Your task to perform on an android device: open chrome privacy settings Image 0: 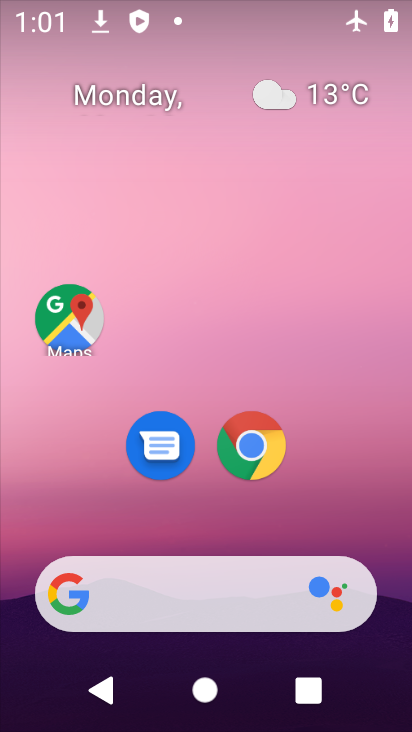
Step 0: click (256, 465)
Your task to perform on an android device: open chrome privacy settings Image 1: 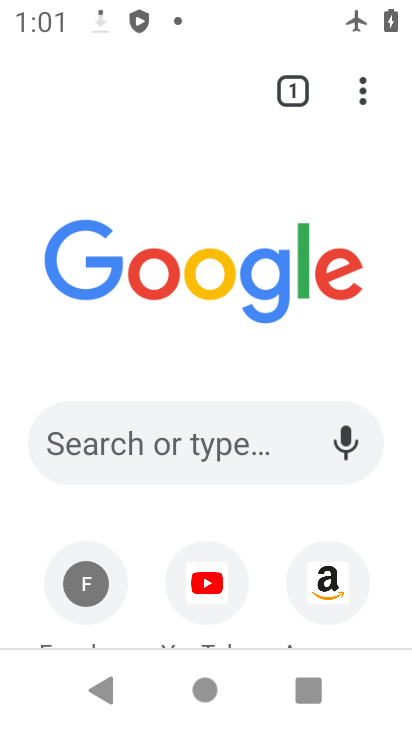
Step 1: click (359, 99)
Your task to perform on an android device: open chrome privacy settings Image 2: 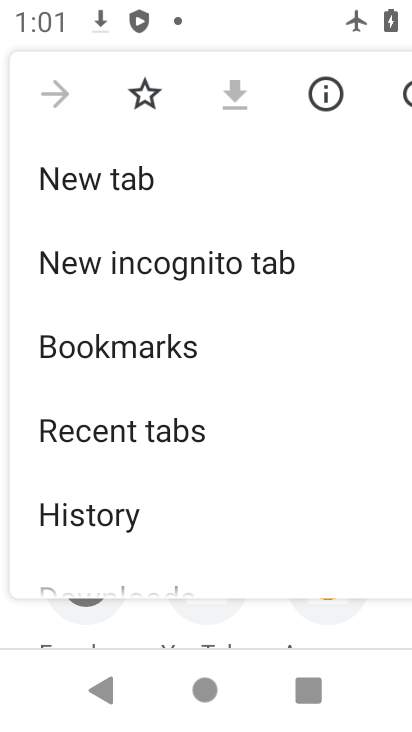
Step 2: drag from (152, 513) to (123, 266)
Your task to perform on an android device: open chrome privacy settings Image 3: 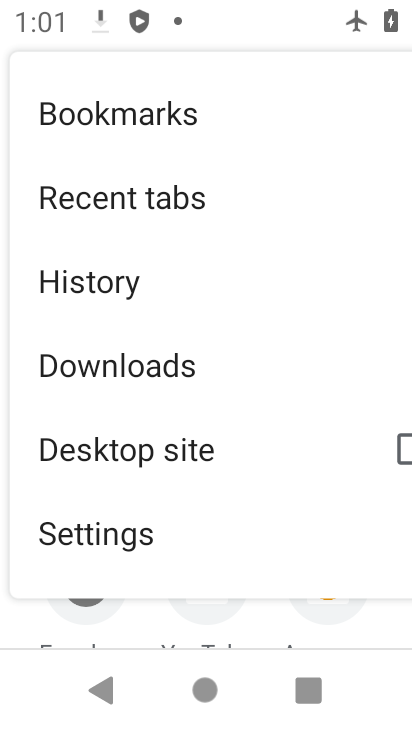
Step 3: click (98, 533)
Your task to perform on an android device: open chrome privacy settings Image 4: 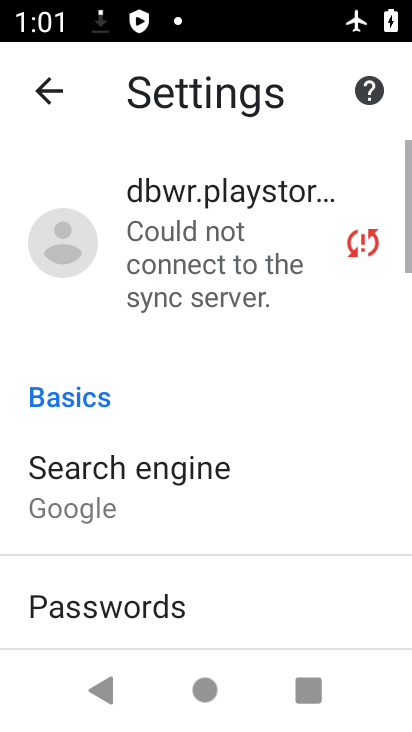
Step 4: drag from (131, 538) to (146, 216)
Your task to perform on an android device: open chrome privacy settings Image 5: 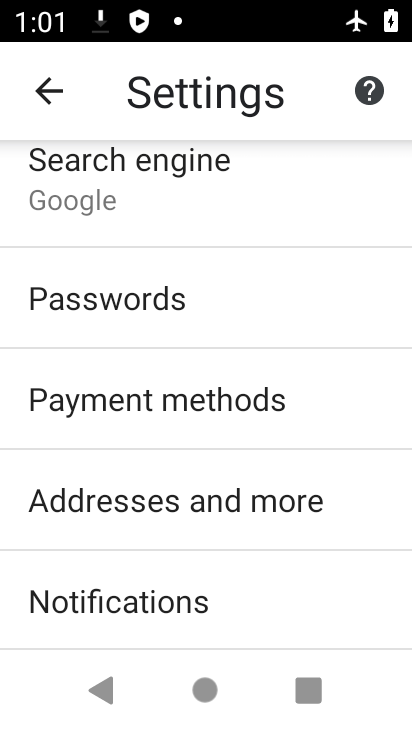
Step 5: drag from (178, 574) to (221, 285)
Your task to perform on an android device: open chrome privacy settings Image 6: 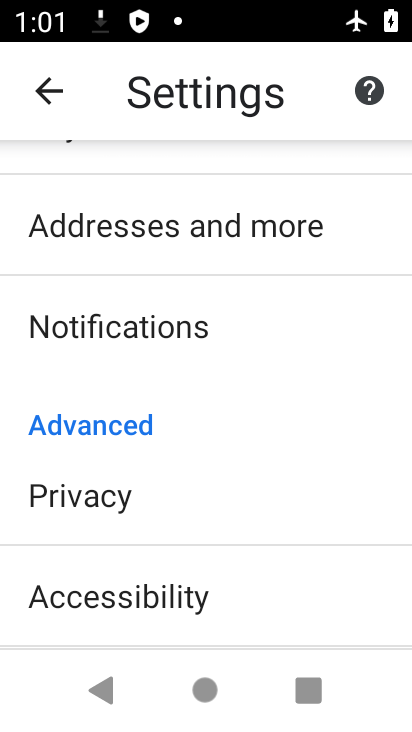
Step 6: click (90, 510)
Your task to perform on an android device: open chrome privacy settings Image 7: 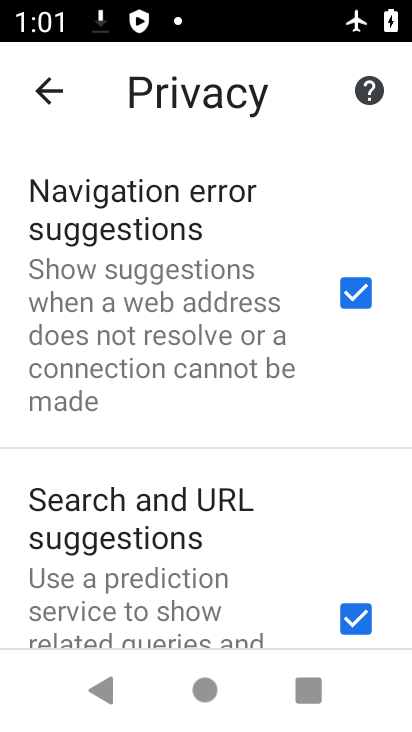
Step 7: task complete